Your task to perform on an android device: check out phone information Image 0: 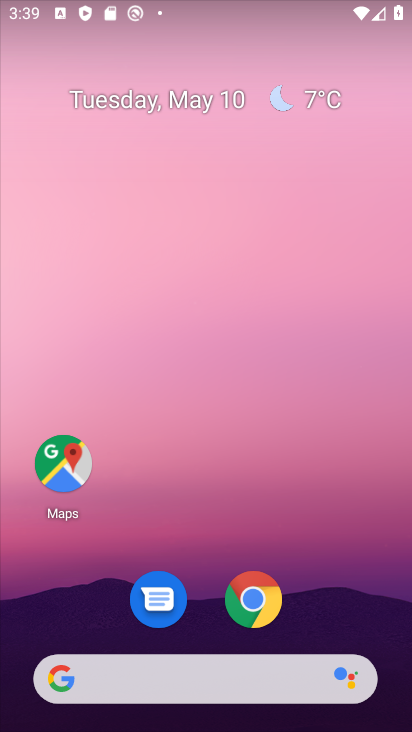
Step 0: drag from (214, 641) to (255, 93)
Your task to perform on an android device: check out phone information Image 1: 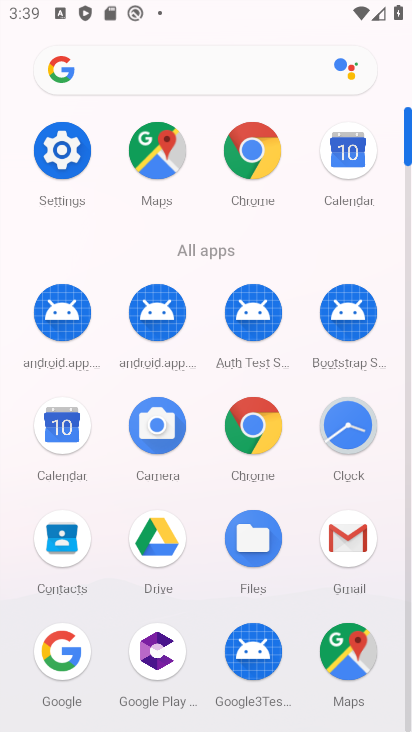
Step 1: click (48, 167)
Your task to perform on an android device: check out phone information Image 2: 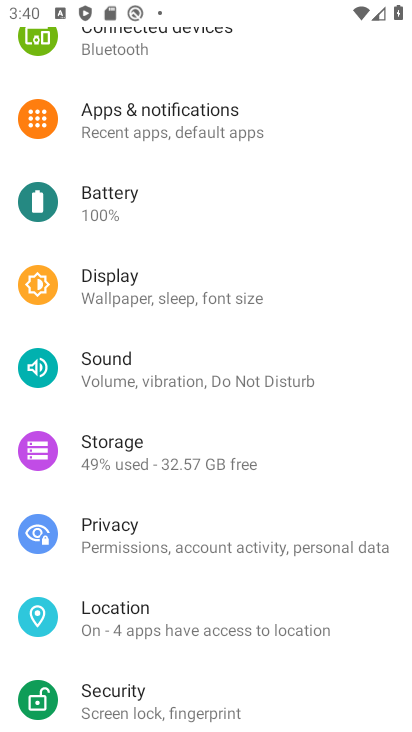
Step 2: drag from (157, 545) to (267, 80)
Your task to perform on an android device: check out phone information Image 3: 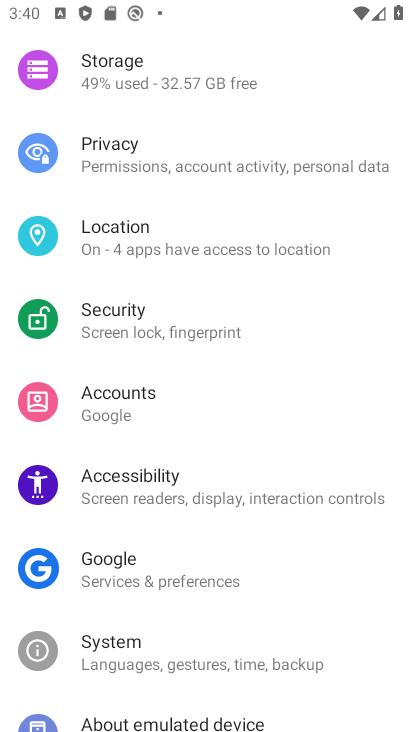
Step 3: drag from (140, 615) to (258, 209)
Your task to perform on an android device: check out phone information Image 4: 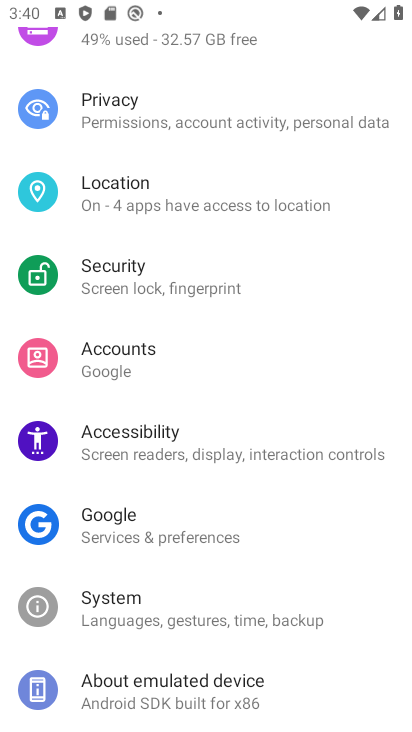
Step 4: click (197, 689)
Your task to perform on an android device: check out phone information Image 5: 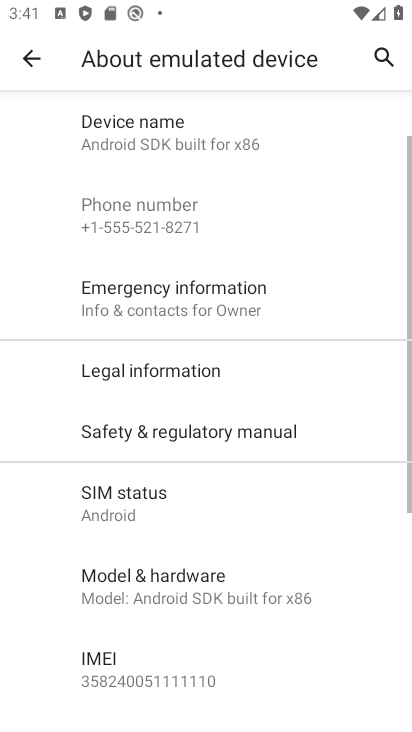
Step 5: task complete